Your task to perform on an android device: Search for vegetarian restaurants on Maps Image 0: 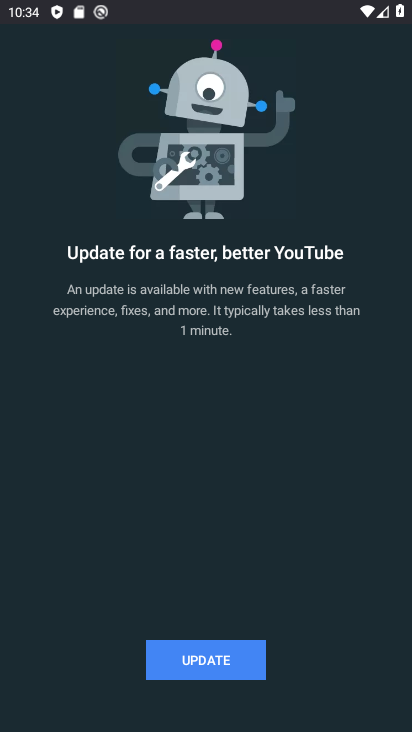
Step 0: press back button
Your task to perform on an android device: Search for vegetarian restaurants on Maps Image 1: 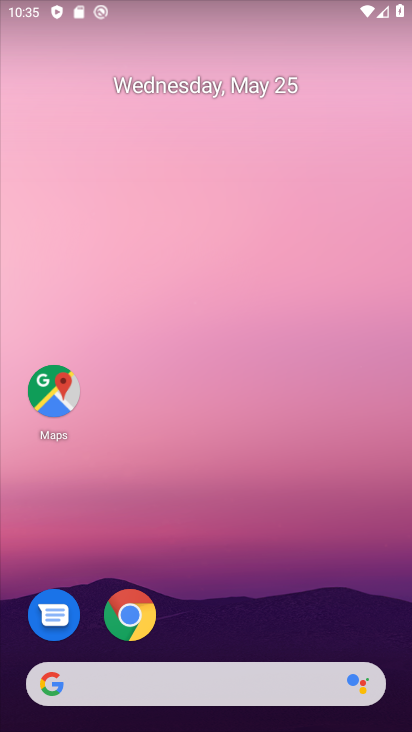
Step 1: click (48, 392)
Your task to perform on an android device: Search for vegetarian restaurants on Maps Image 2: 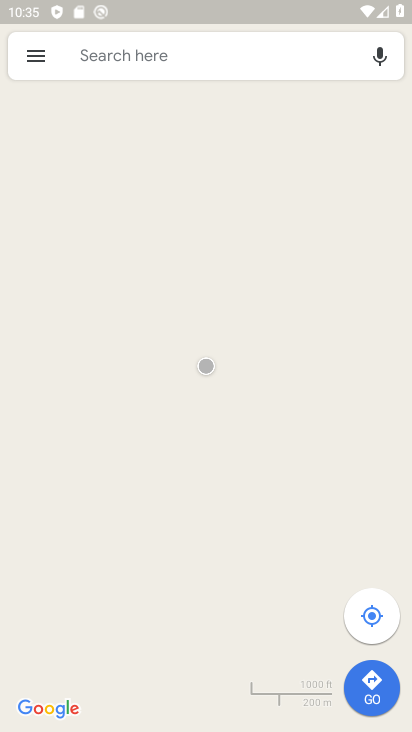
Step 2: click (199, 56)
Your task to perform on an android device: Search for vegetarian restaurants on Maps Image 3: 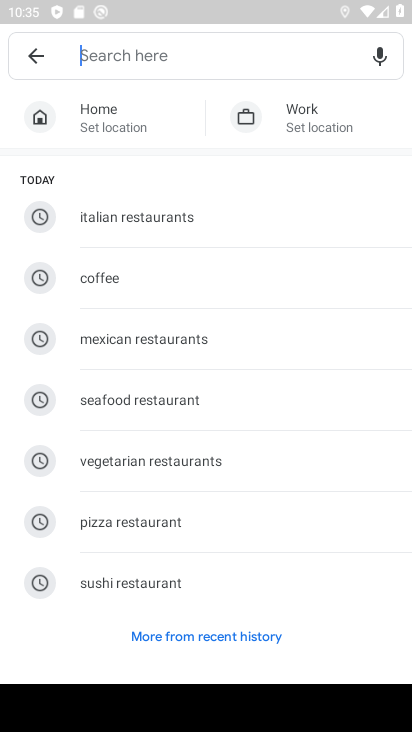
Step 3: type "vegetarian restaurant"
Your task to perform on an android device: Search for vegetarian restaurants on Maps Image 4: 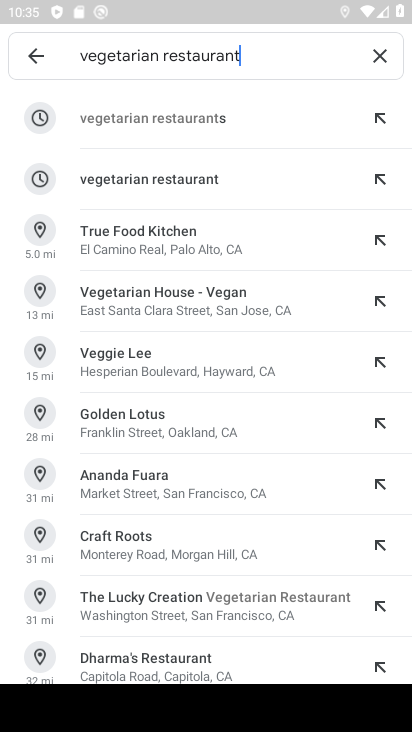
Step 4: click (207, 113)
Your task to perform on an android device: Search for vegetarian restaurants on Maps Image 5: 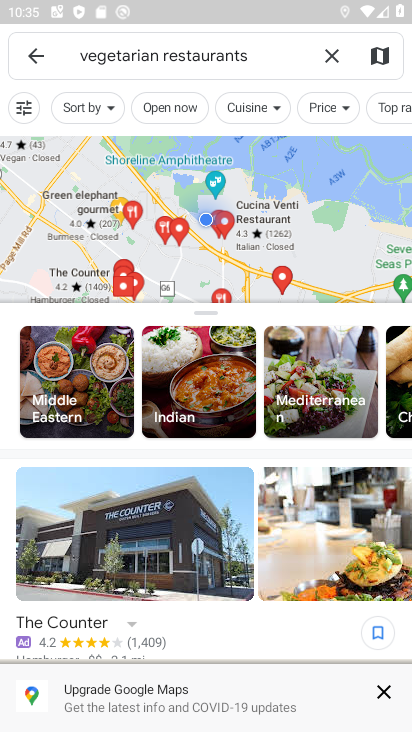
Step 5: task complete